Your task to perform on an android device: What is the recent news? Image 0: 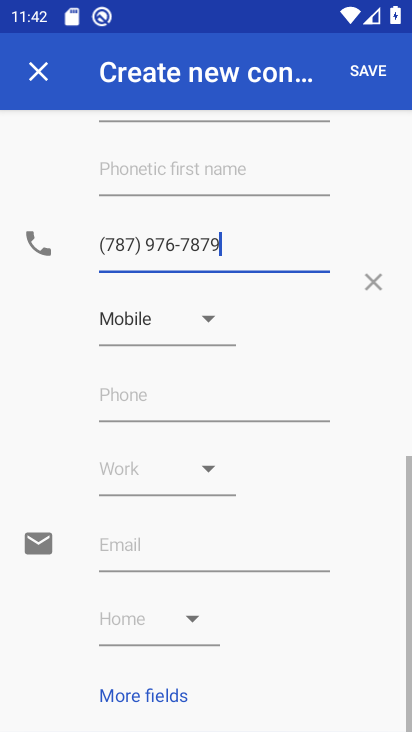
Step 0: drag from (179, 635) to (197, 352)
Your task to perform on an android device: What is the recent news? Image 1: 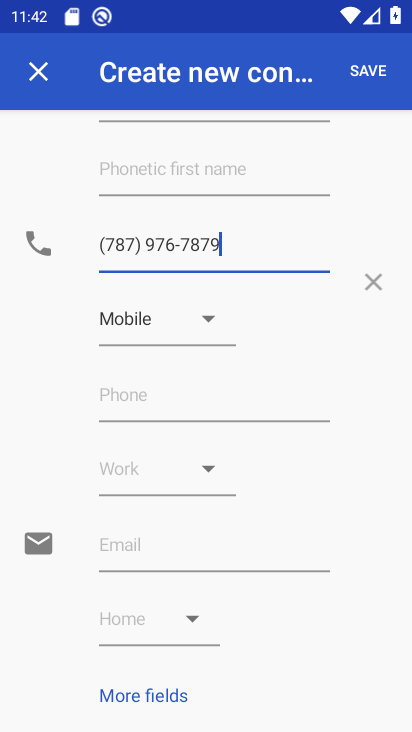
Step 1: press home button
Your task to perform on an android device: What is the recent news? Image 2: 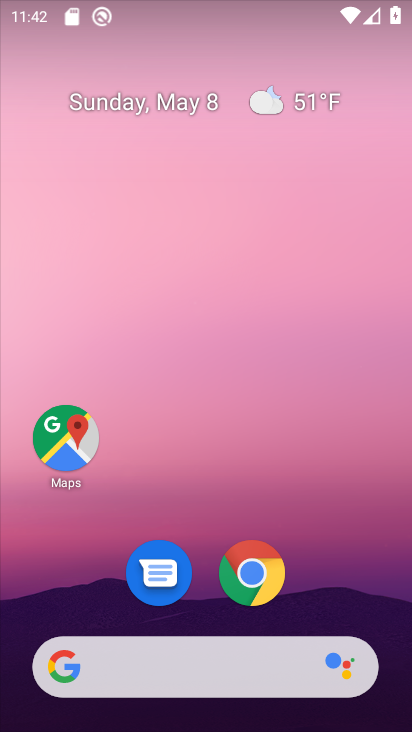
Step 2: drag from (180, 627) to (172, 393)
Your task to perform on an android device: What is the recent news? Image 3: 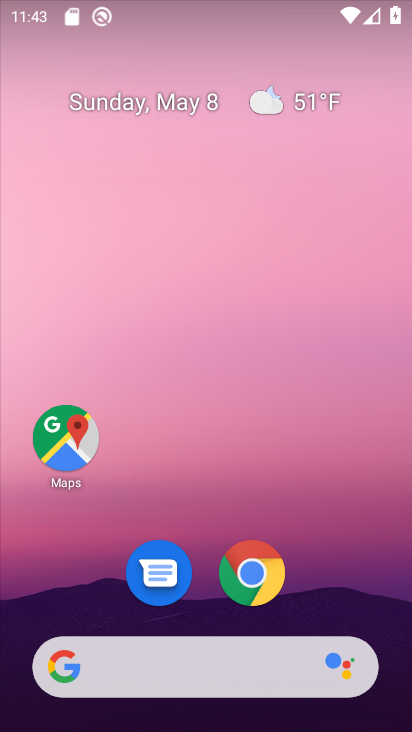
Step 3: drag from (130, 631) to (130, 313)
Your task to perform on an android device: What is the recent news? Image 4: 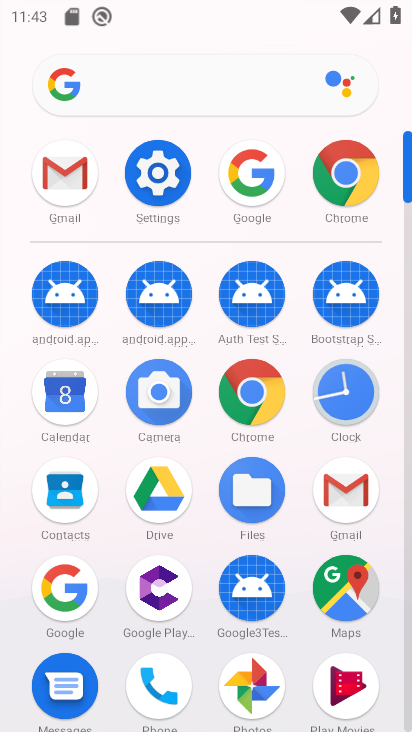
Step 4: click (59, 594)
Your task to perform on an android device: What is the recent news? Image 5: 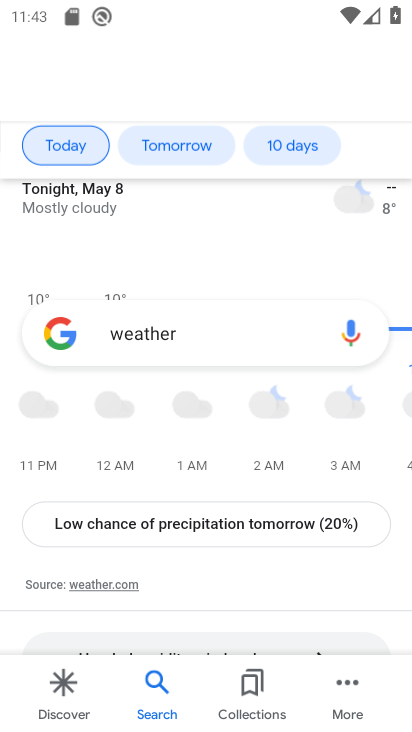
Step 5: press back button
Your task to perform on an android device: What is the recent news? Image 6: 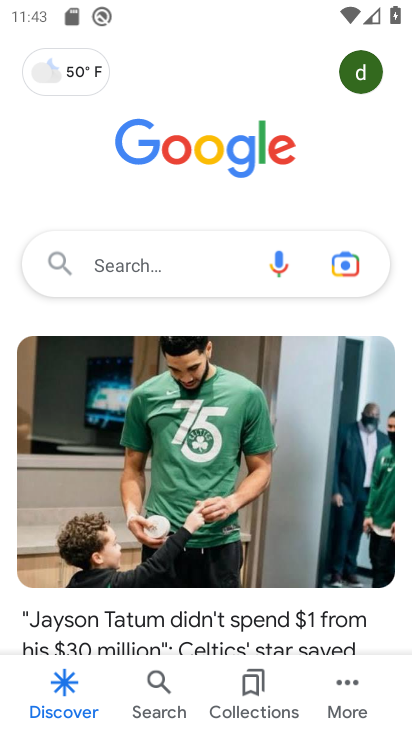
Step 6: click (165, 260)
Your task to perform on an android device: What is the recent news? Image 7: 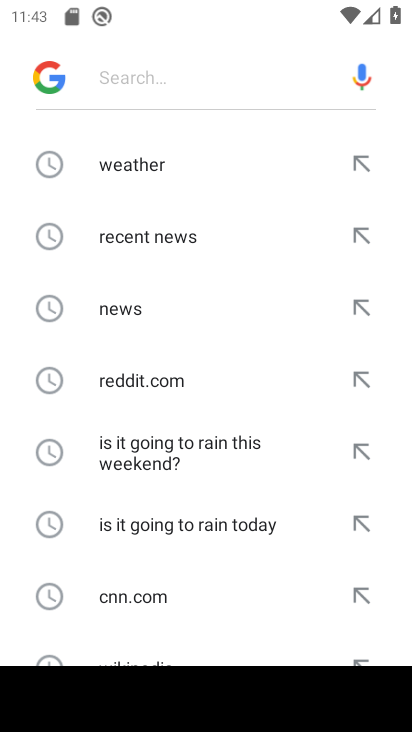
Step 7: click (160, 239)
Your task to perform on an android device: What is the recent news? Image 8: 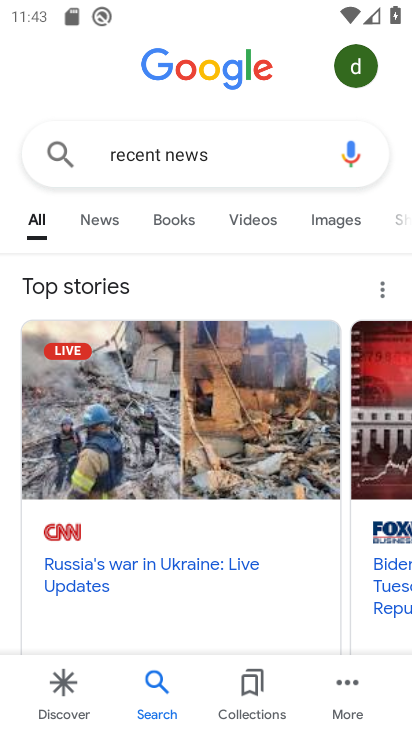
Step 8: click (204, 210)
Your task to perform on an android device: What is the recent news? Image 9: 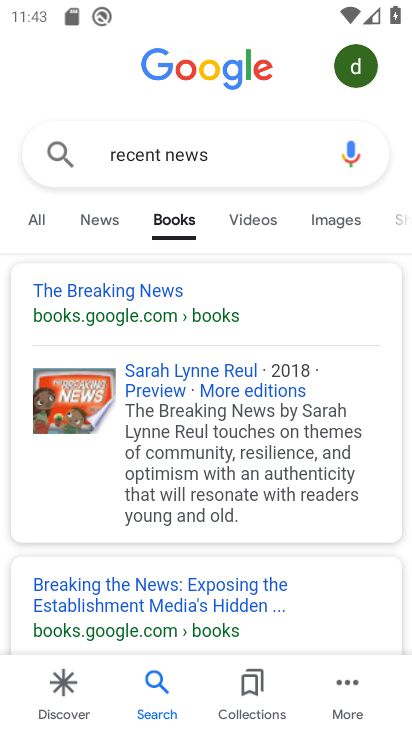
Step 9: task complete